Your task to perform on an android device: Add alienware aurora to the cart on amazon.com Image 0: 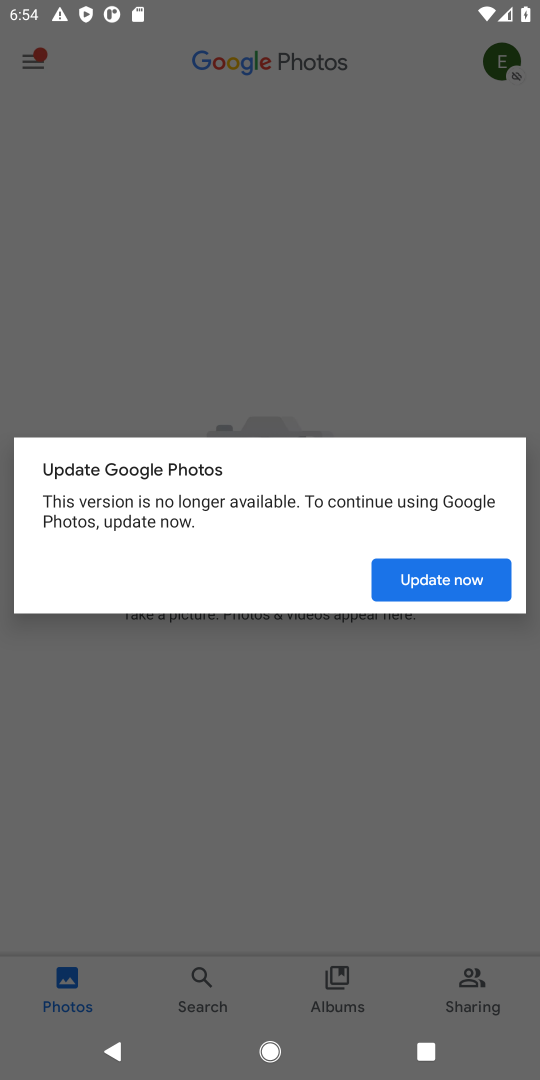
Step 0: press home button
Your task to perform on an android device: Add alienware aurora to the cart on amazon.com Image 1: 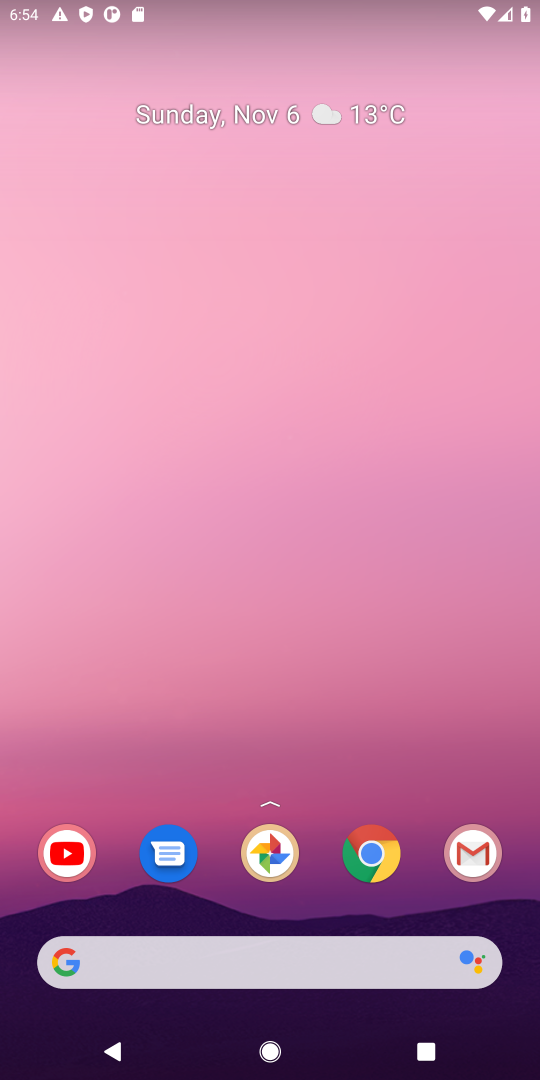
Step 1: click (372, 854)
Your task to perform on an android device: Add alienware aurora to the cart on amazon.com Image 2: 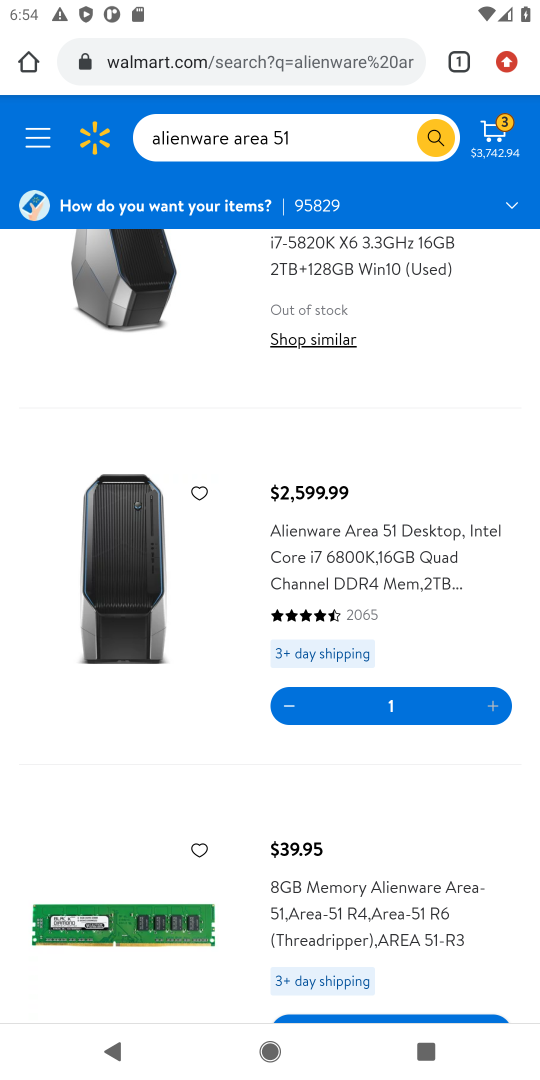
Step 2: click (295, 121)
Your task to perform on an android device: Add alienware aurora to the cart on amazon.com Image 3: 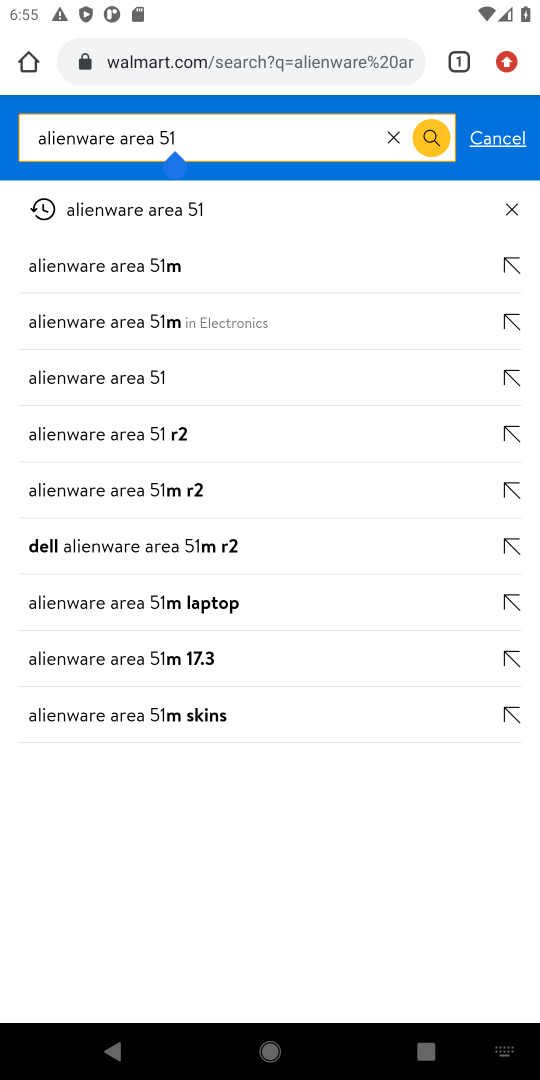
Step 3: click (395, 135)
Your task to perform on an android device: Add alienware aurora to the cart on amazon.com Image 4: 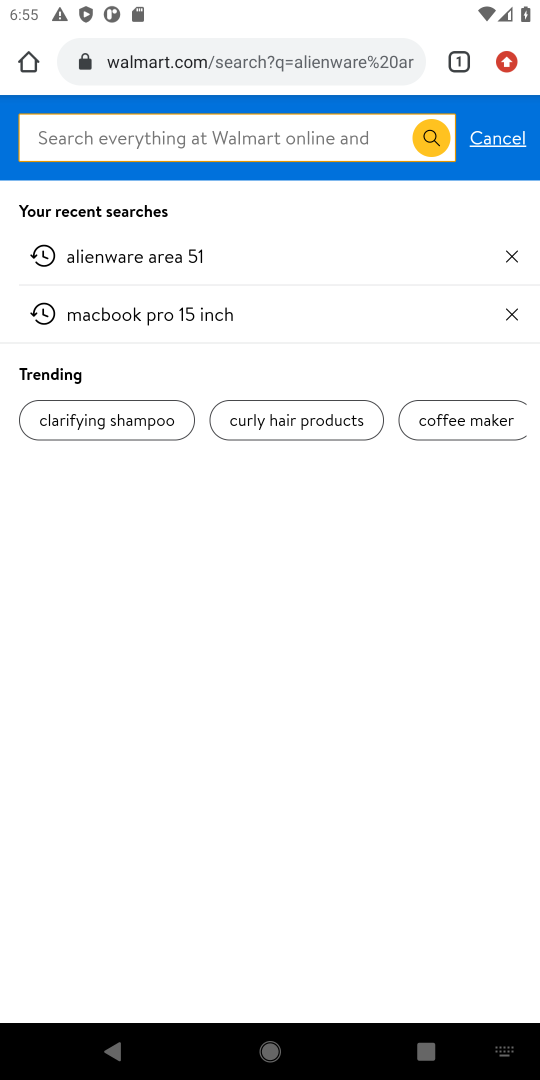
Step 4: click (244, 37)
Your task to perform on an android device: Add alienware aurora to the cart on amazon.com Image 5: 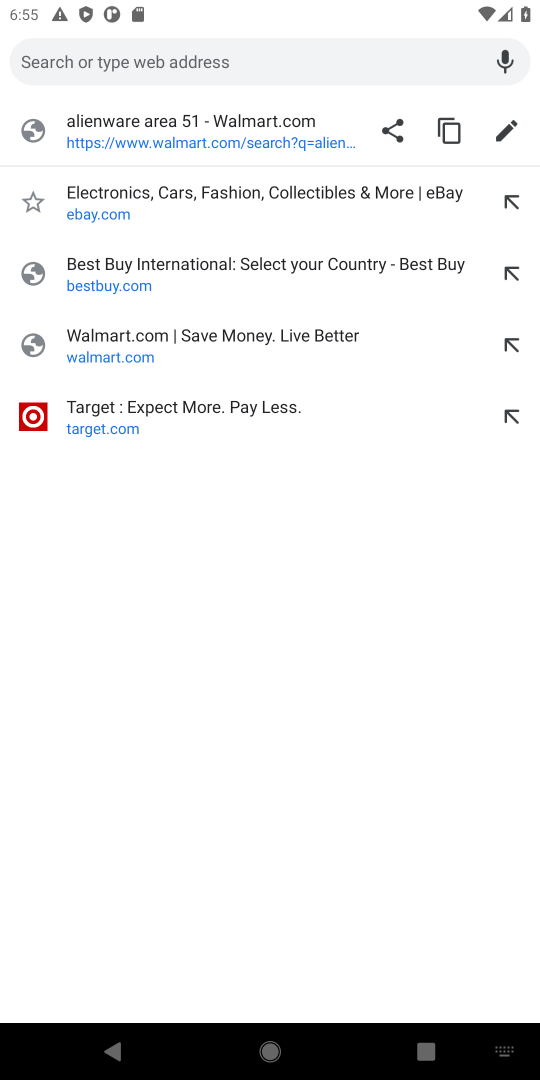
Step 5: type "amazon"
Your task to perform on an android device: Add alienware aurora to the cart on amazon.com Image 6: 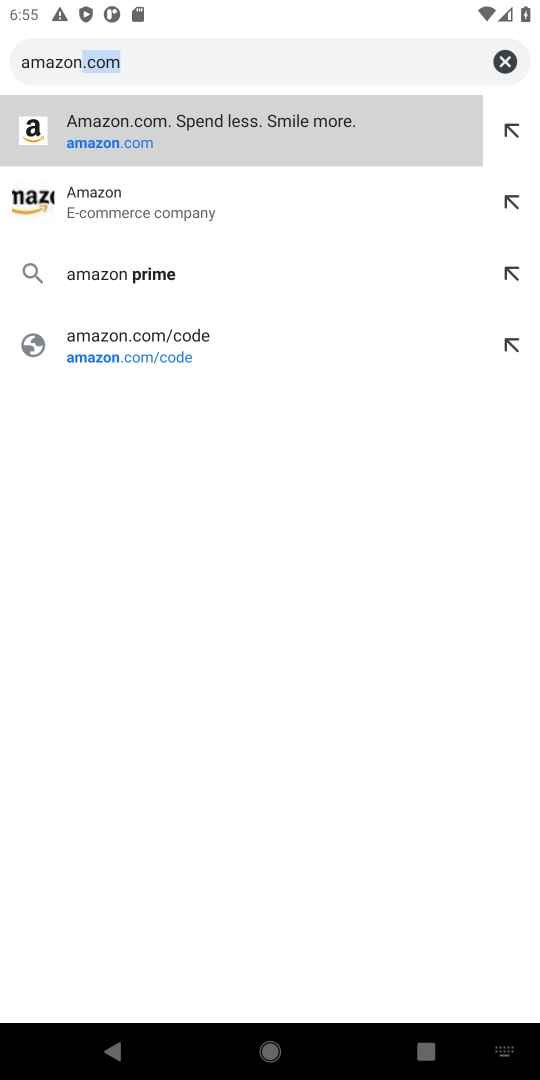
Step 6: click (120, 140)
Your task to perform on an android device: Add alienware aurora to the cart on amazon.com Image 7: 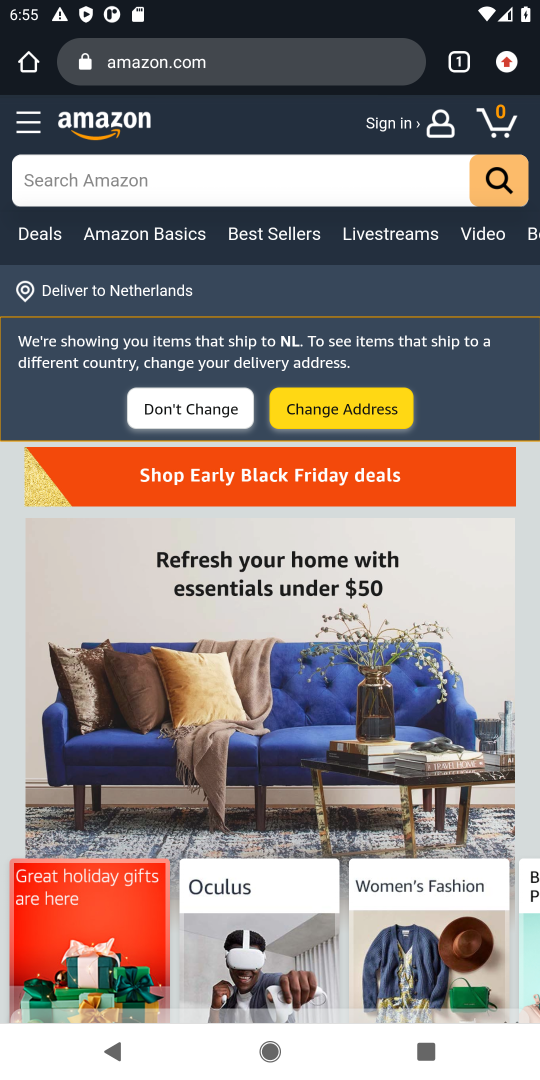
Step 7: click (133, 178)
Your task to perform on an android device: Add alienware aurora to the cart on amazon.com Image 8: 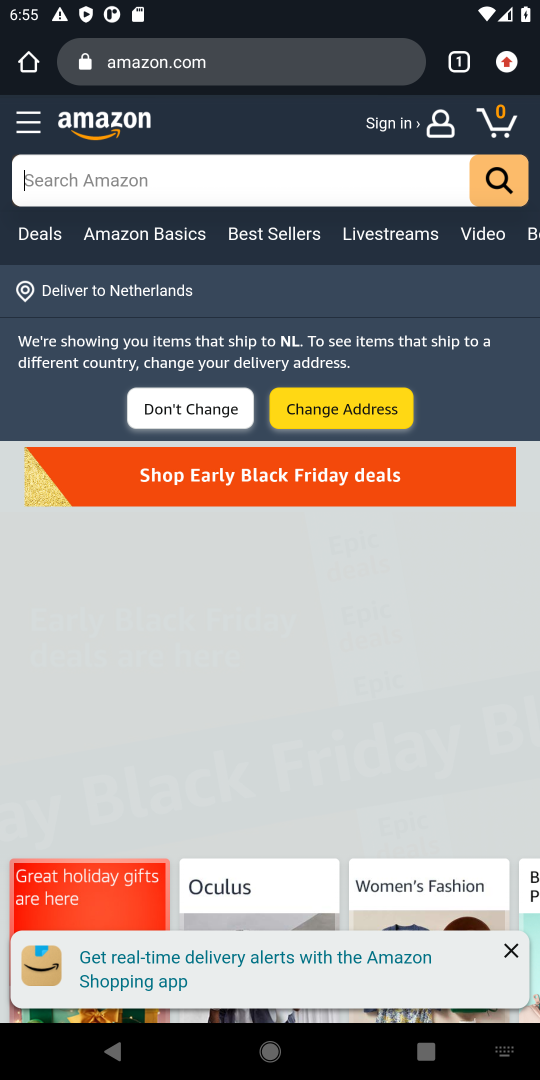
Step 8: type "alienware aurora"
Your task to perform on an android device: Add alienware aurora to the cart on amazon.com Image 9: 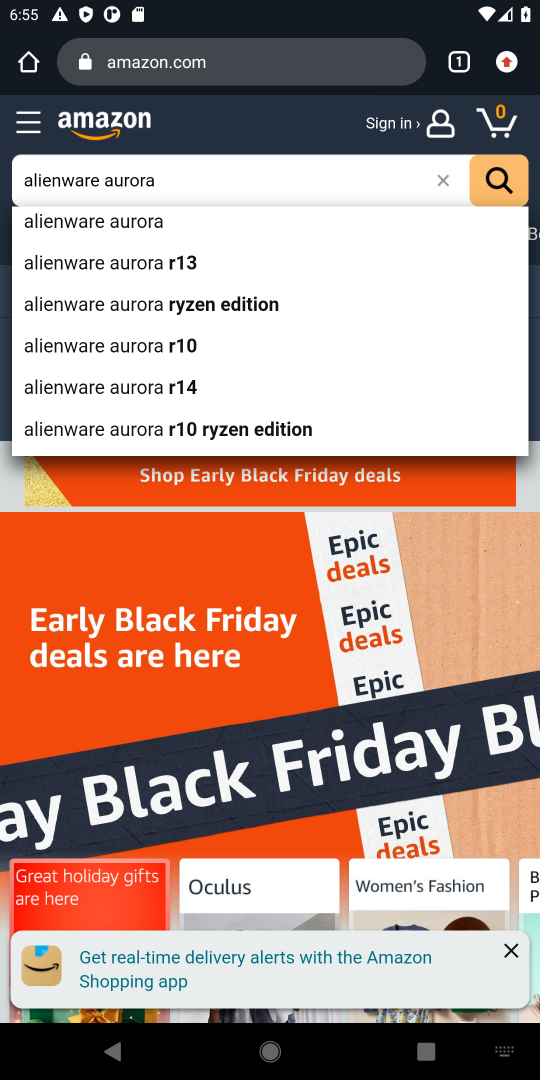
Step 9: click (69, 218)
Your task to perform on an android device: Add alienware aurora to the cart on amazon.com Image 10: 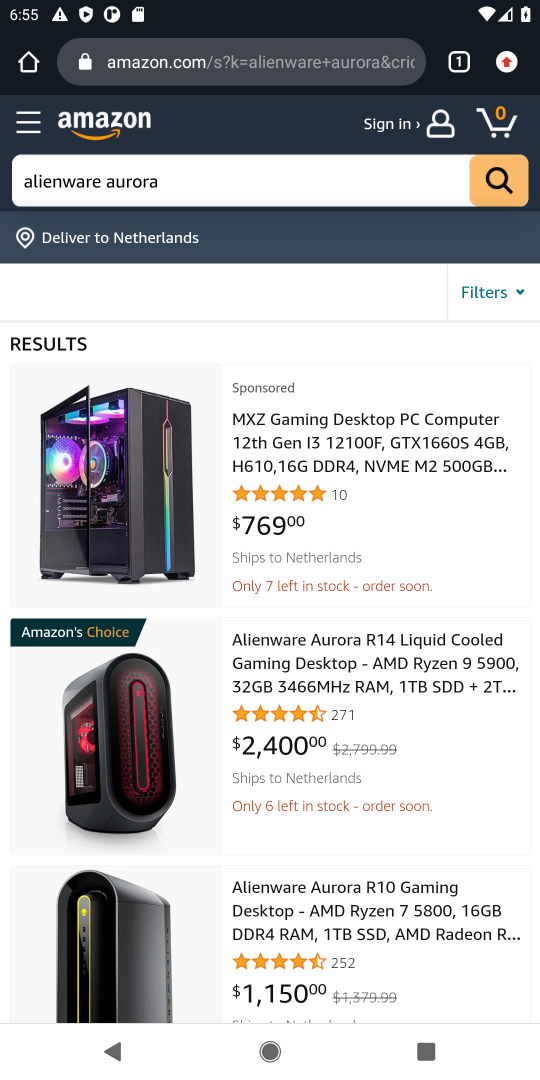
Step 10: click (308, 659)
Your task to perform on an android device: Add alienware aurora to the cart on amazon.com Image 11: 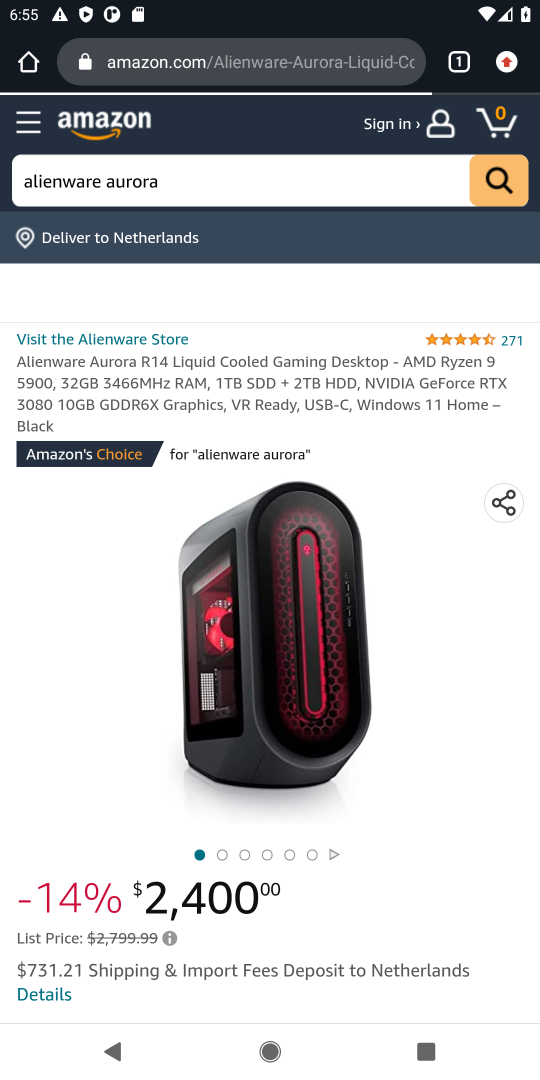
Step 11: drag from (402, 912) to (393, 549)
Your task to perform on an android device: Add alienware aurora to the cart on amazon.com Image 12: 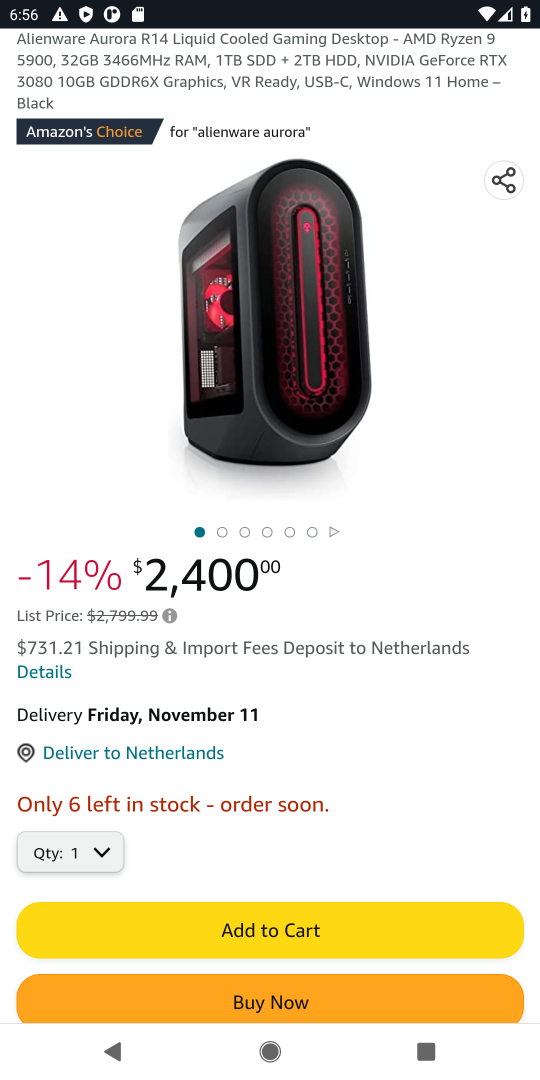
Step 12: drag from (382, 880) to (377, 662)
Your task to perform on an android device: Add alienware aurora to the cart on amazon.com Image 13: 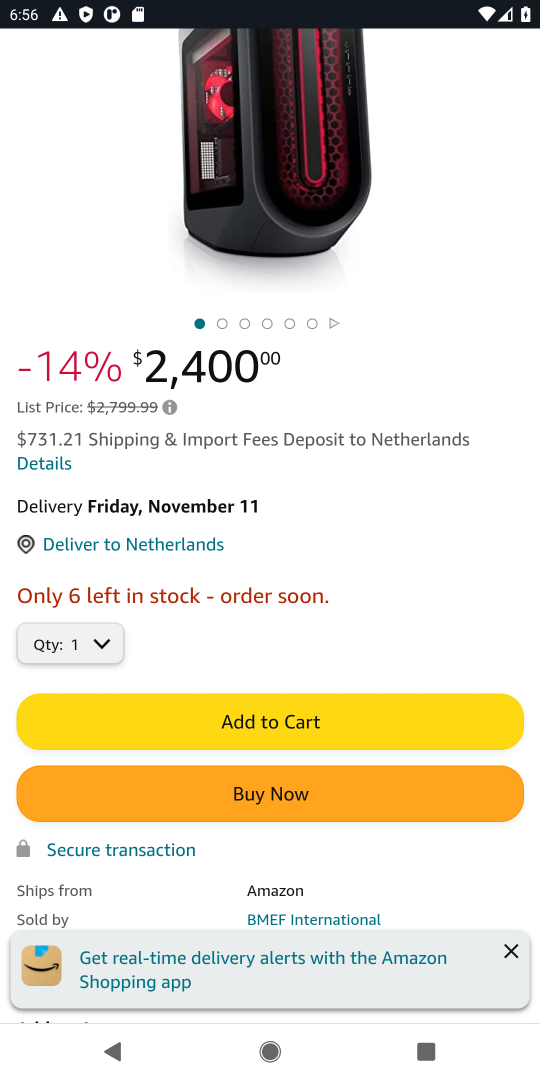
Step 13: click (267, 725)
Your task to perform on an android device: Add alienware aurora to the cart on amazon.com Image 14: 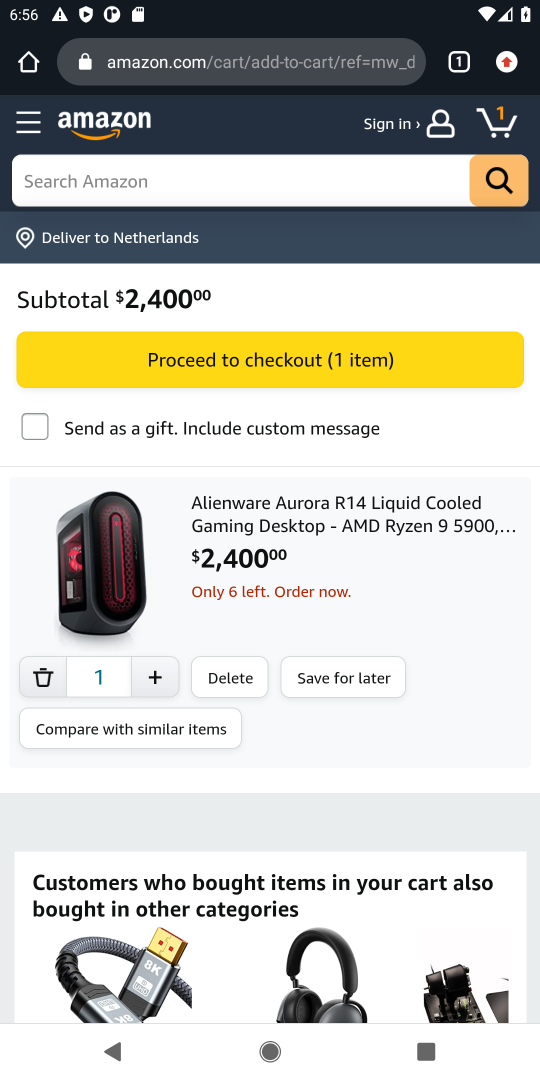
Step 14: task complete